Your task to perform on an android device: check the backup settings in the google photos Image 0: 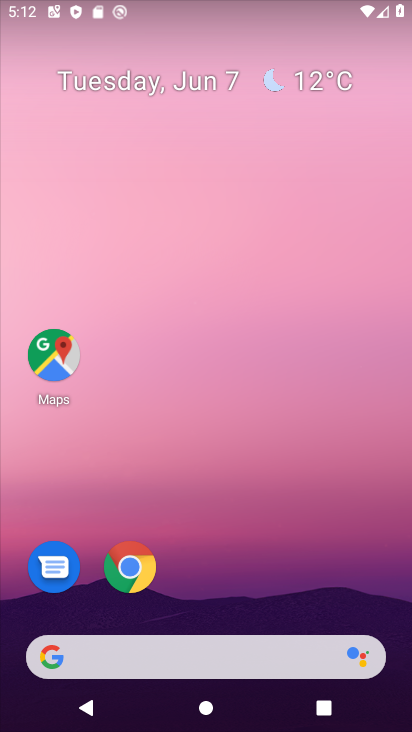
Step 0: drag from (267, 552) to (229, 12)
Your task to perform on an android device: check the backup settings in the google photos Image 1: 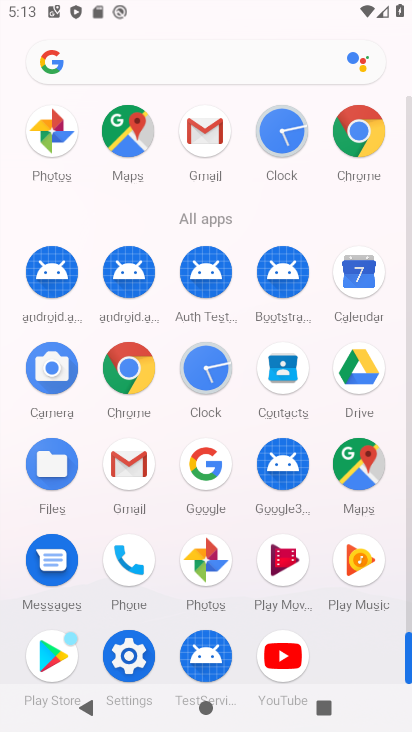
Step 1: click (207, 559)
Your task to perform on an android device: check the backup settings in the google photos Image 2: 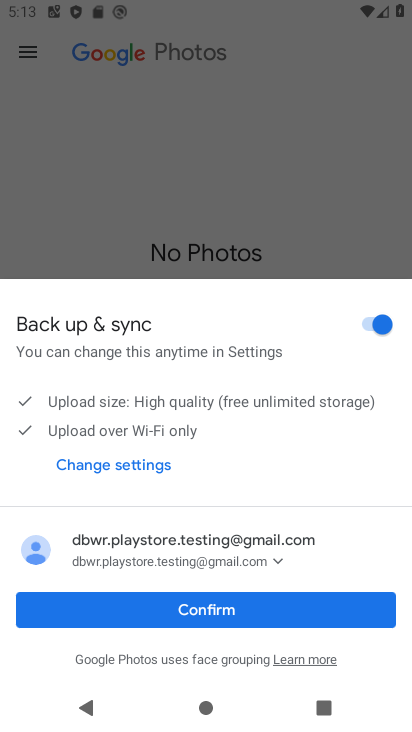
Step 2: click (207, 617)
Your task to perform on an android device: check the backup settings in the google photos Image 3: 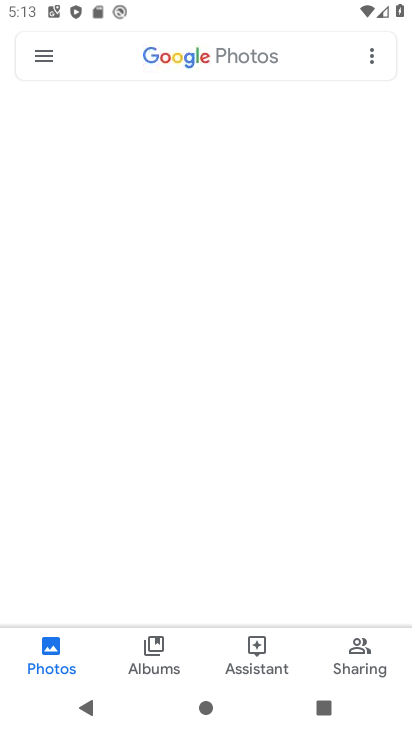
Step 3: click (37, 55)
Your task to perform on an android device: check the backup settings in the google photos Image 4: 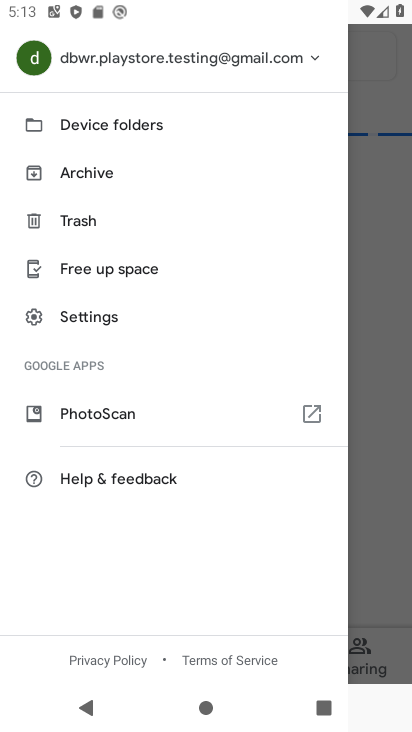
Step 4: click (116, 309)
Your task to perform on an android device: check the backup settings in the google photos Image 5: 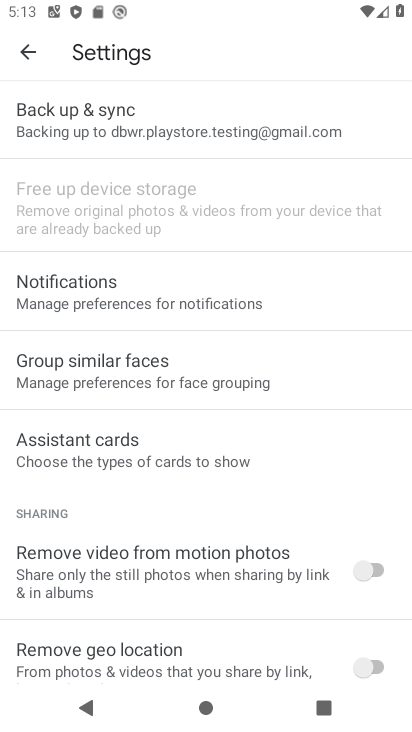
Step 5: click (137, 123)
Your task to perform on an android device: check the backup settings in the google photos Image 6: 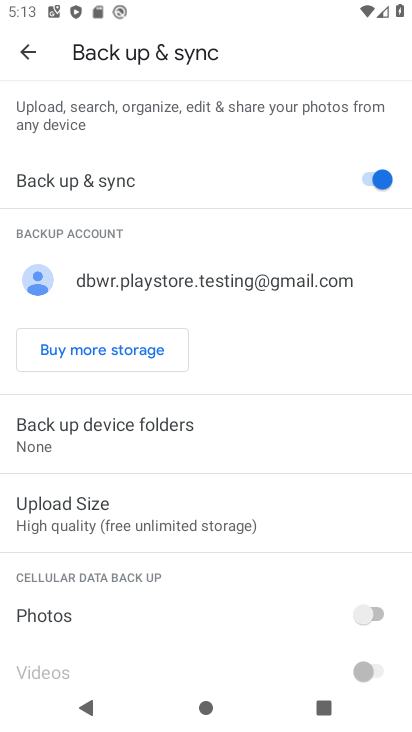
Step 6: task complete